Your task to perform on an android device: delete location history Image 0: 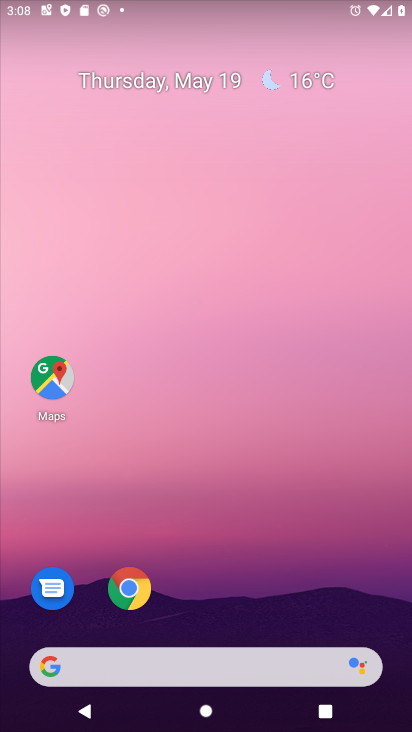
Step 0: drag from (204, 582) to (254, 19)
Your task to perform on an android device: delete location history Image 1: 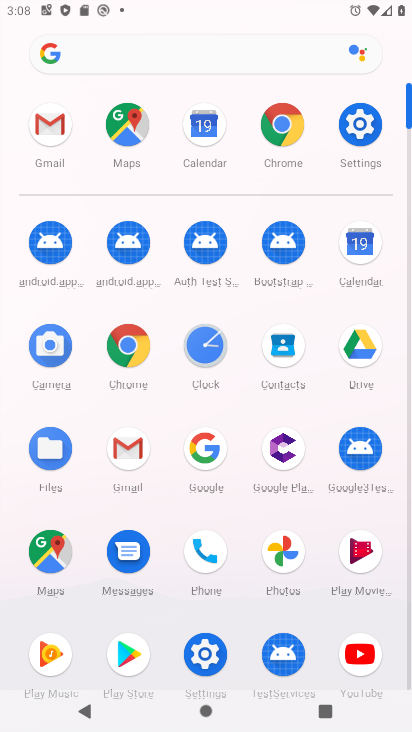
Step 1: click (123, 122)
Your task to perform on an android device: delete location history Image 2: 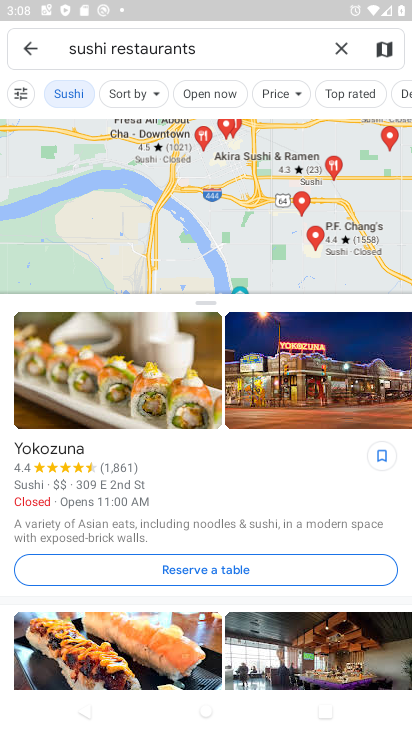
Step 2: click (29, 45)
Your task to perform on an android device: delete location history Image 3: 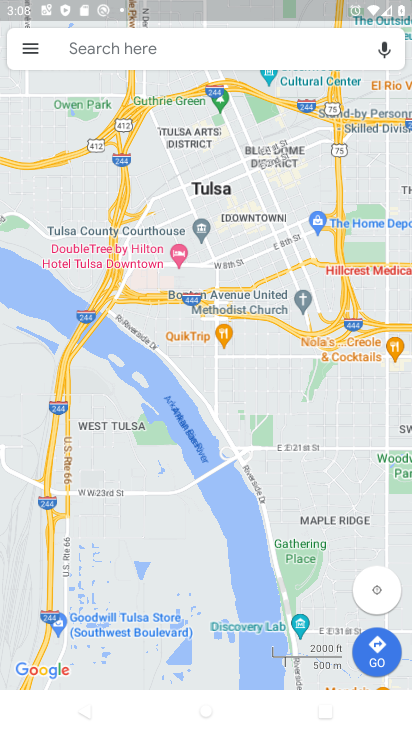
Step 3: click (29, 44)
Your task to perform on an android device: delete location history Image 4: 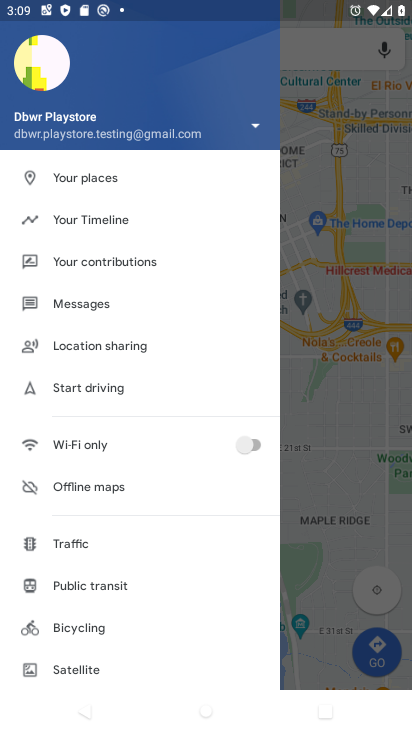
Step 4: drag from (104, 657) to (172, 185)
Your task to perform on an android device: delete location history Image 5: 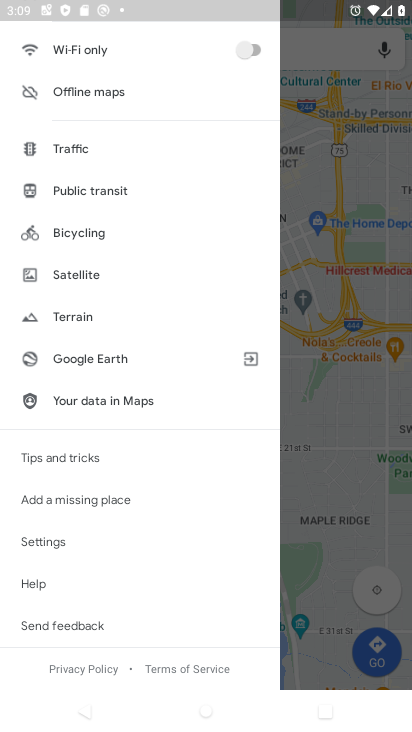
Step 5: click (47, 535)
Your task to perform on an android device: delete location history Image 6: 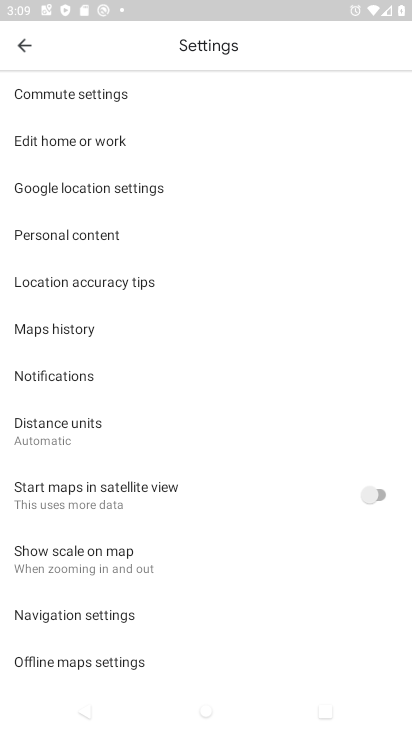
Step 6: click (28, 322)
Your task to perform on an android device: delete location history Image 7: 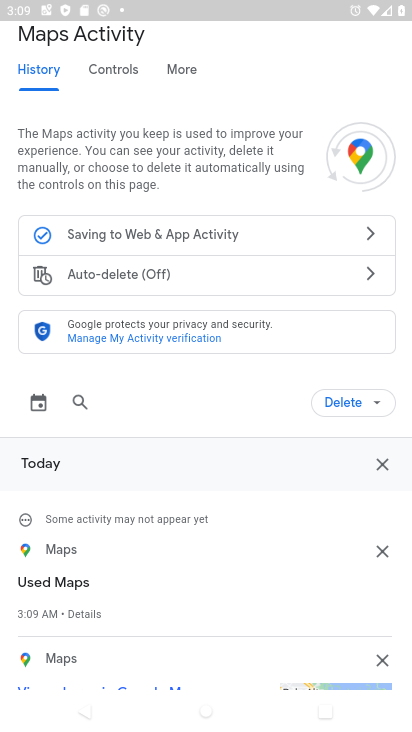
Step 7: click (367, 381)
Your task to perform on an android device: delete location history Image 8: 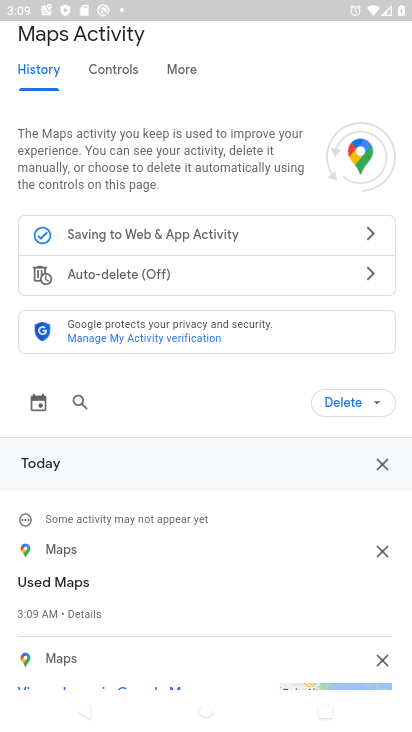
Step 8: click (360, 395)
Your task to perform on an android device: delete location history Image 9: 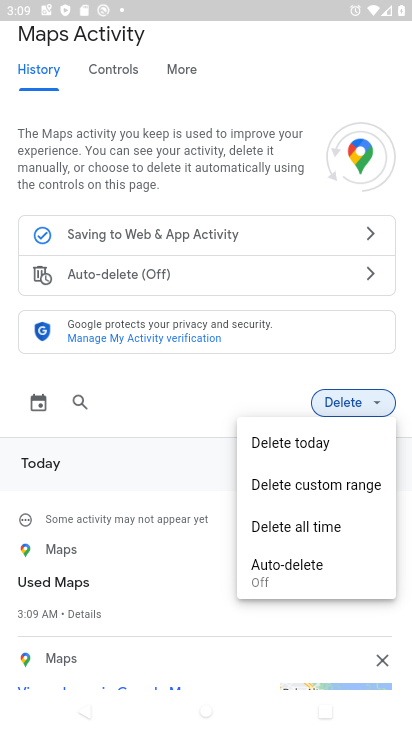
Step 9: drag from (327, 552) to (303, 461)
Your task to perform on an android device: delete location history Image 10: 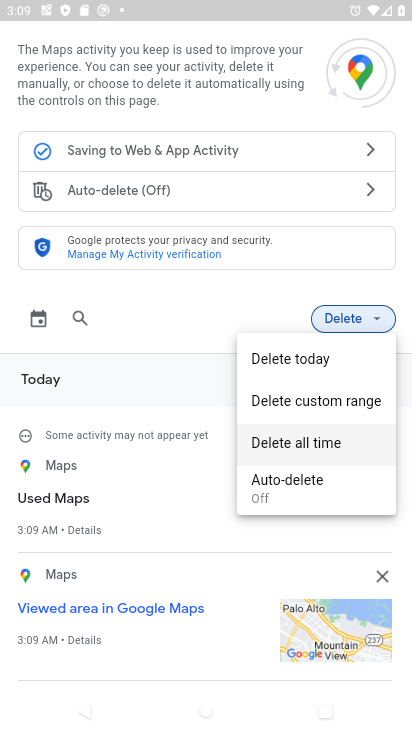
Step 10: click (303, 444)
Your task to perform on an android device: delete location history Image 11: 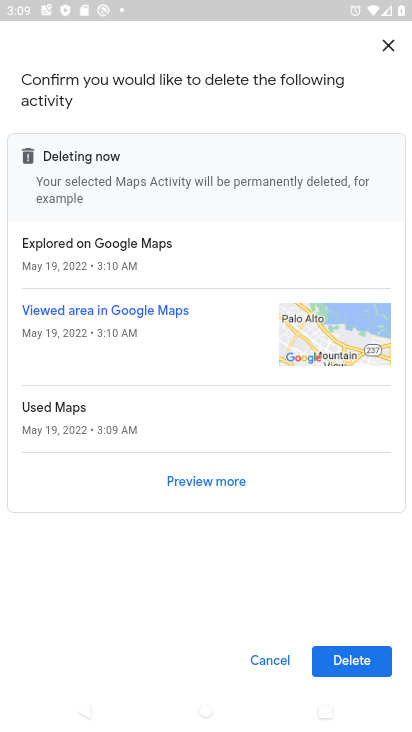
Step 11: click (375, 659)
Your task to perform on an android device: delete location history Image 12: 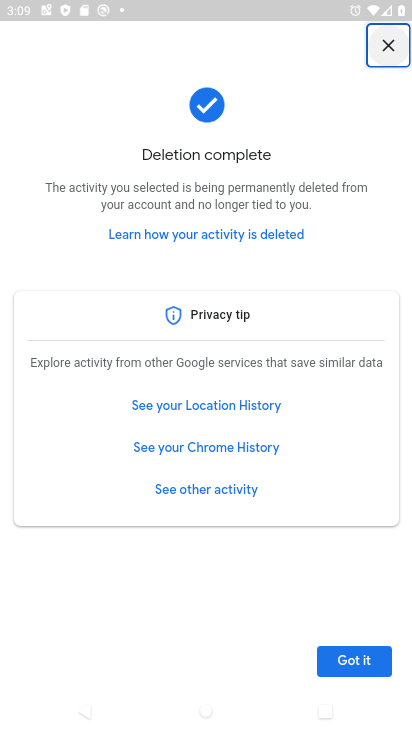
Step 12: click (357, 678)
Your task to perform on an android device: delete location history Image 13: 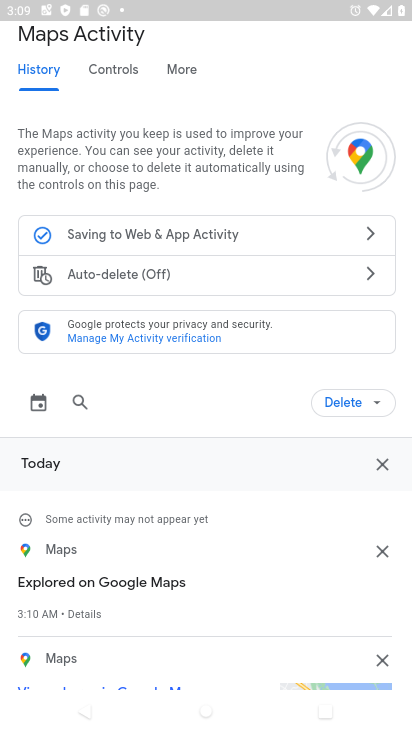
Step 13: task complete